Your task to perform on an android device: change text size in settings app Image 0: 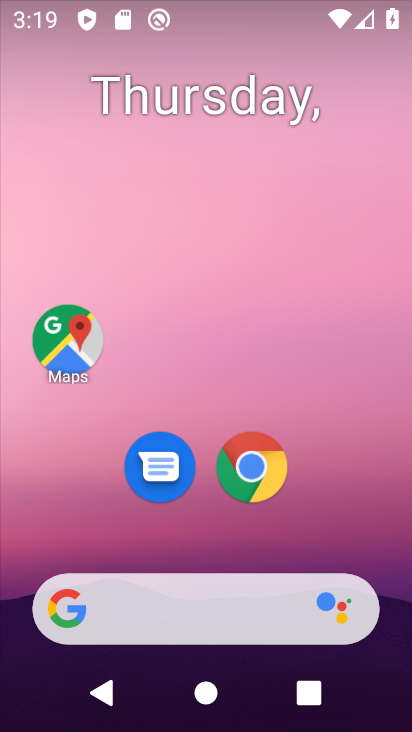
Step 0: drag from (231, 590) to (272, 71)
Your task to perform on an android device: change text size in settings app Image 1: 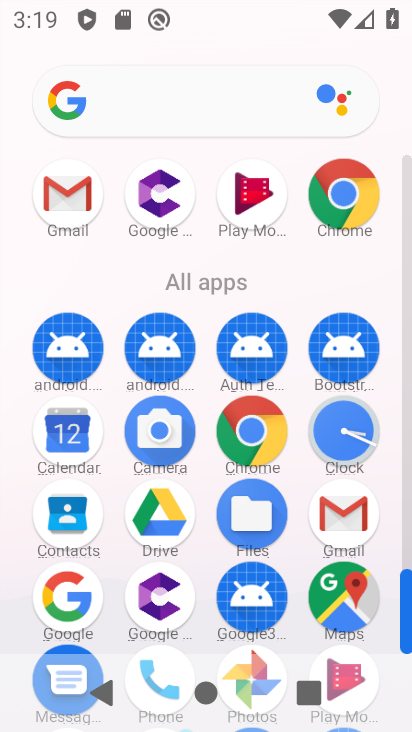
Step 1: drag from (280, 647) to (320, 139)
Your task to perform on an android device: change text size in settings app Image 2: 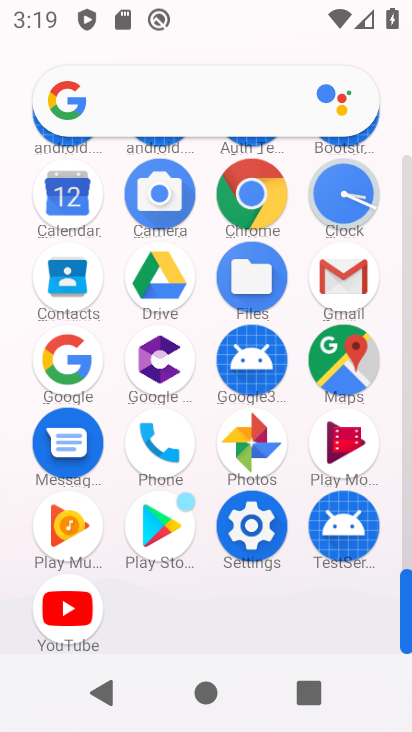
Step 2: click (255, 524)
Your task to perform on an android device: change text size in settings app Image 3: 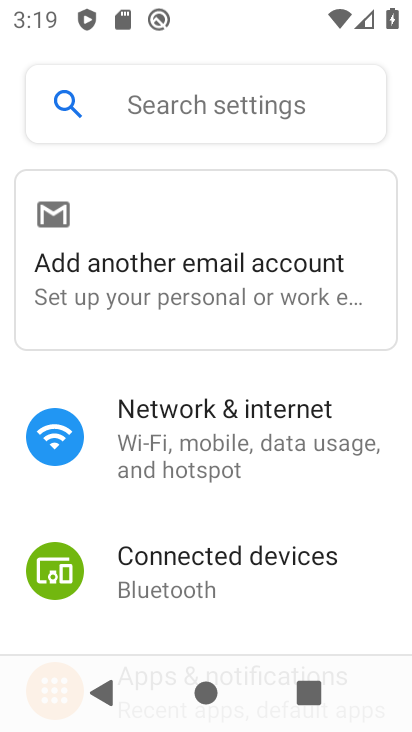
Step 3: drag from (285, 576) to (331, 225)
Your task to perform on an android device: change text size in settings app Image 4: 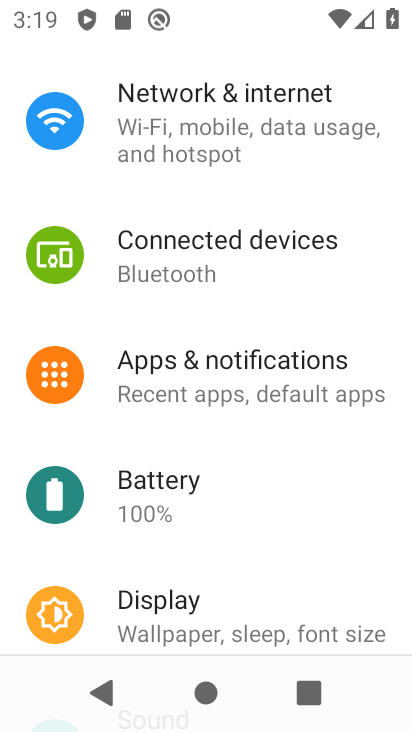
Step 4: drag from (258, 613) to (319, 312)
Your task to perform on an android device: change text size in settings app Image 5: 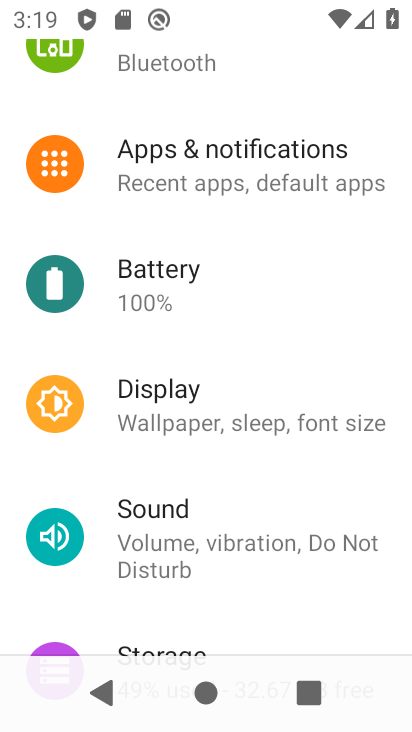
Step 5: drag from (190, 625) to (245, 187)
Your task to perform on an android device: change text size in settings app Image 6: 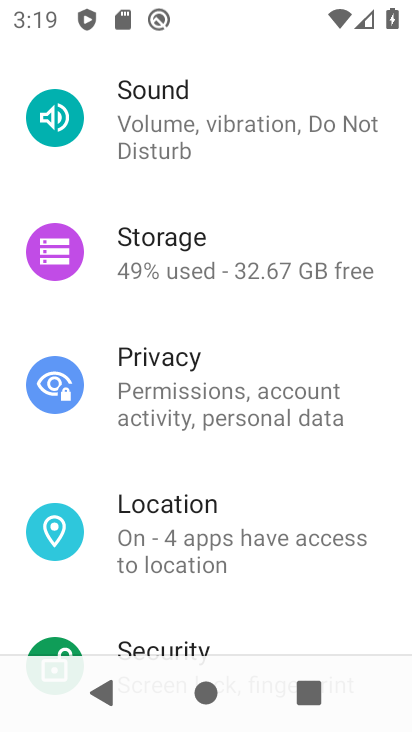
Step 6: drag from (193, 655) to (176, 140)
Your task to perform on an android device: change text size in settings app Image 7: 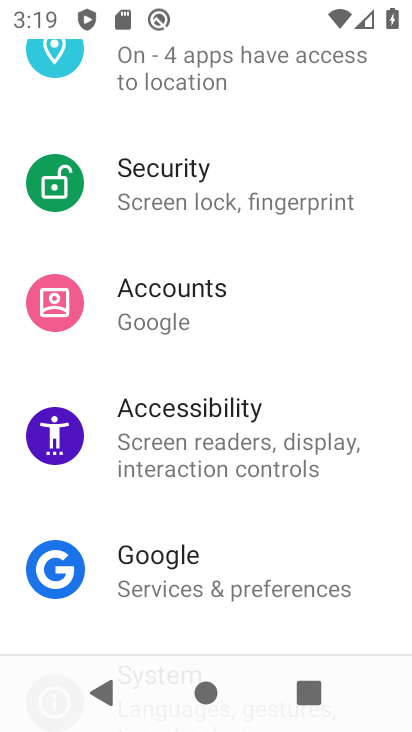
Step 7: drag from (244, 570) to (258, 242)
Your task to perform on an android device: change text size in settings app Image 8: 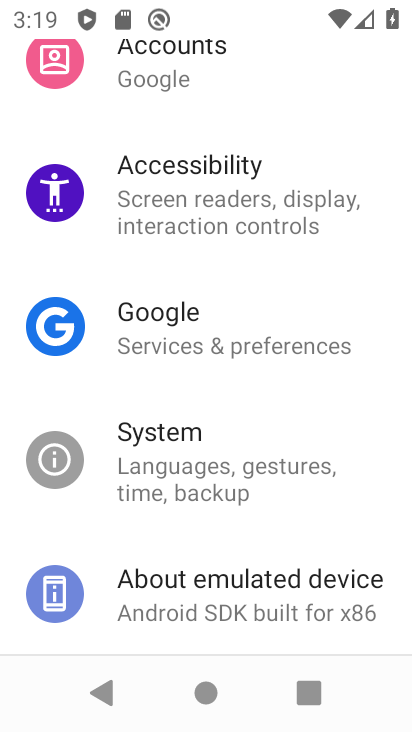
Step 8: click (209, 226)
Your task to perform on an android device: change text size in settings app Image 9: 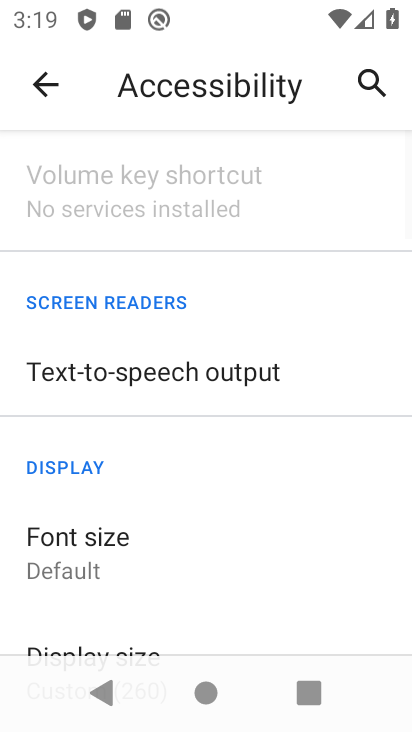
Step 9: drag from (191, 553) to (218, 233)
Your task to perform on an android device: change text size in settings app Image 10: 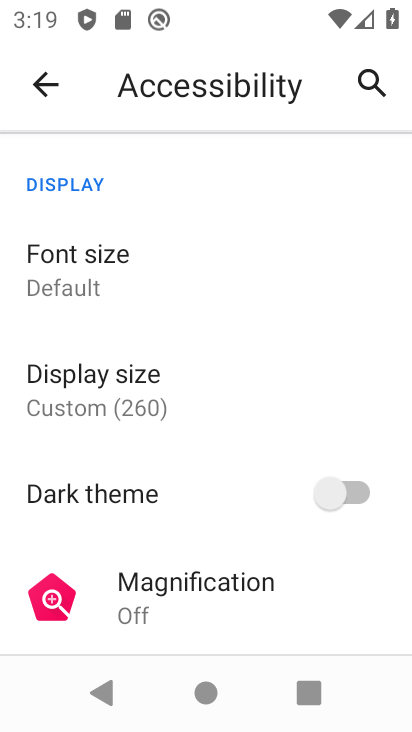
Step 10: click (98, 281)
Your task to perform on an android device: change text size in settings app Image 11: 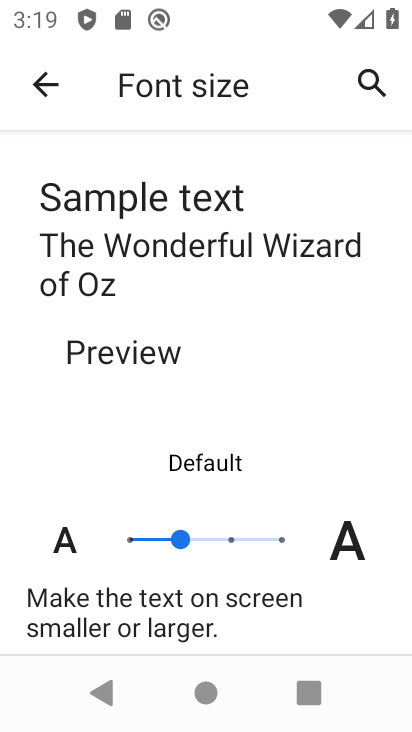
Step 11: click (216, 538)
Your task to perform on an android device: change text size in settings app Image 12: 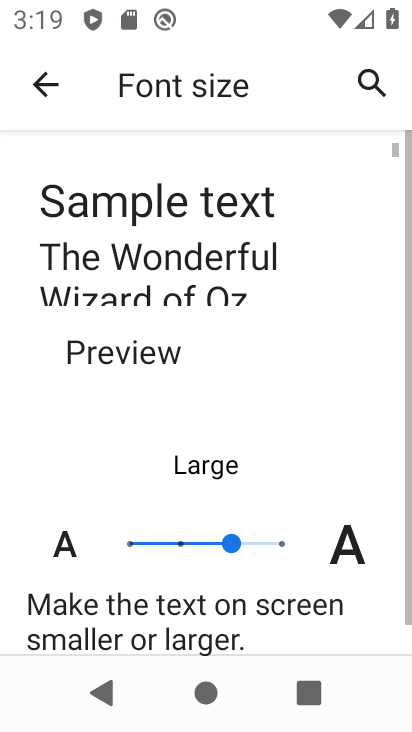
Step 12: task complete